Your task to perform on an android device: turn notification dots off Image 0: 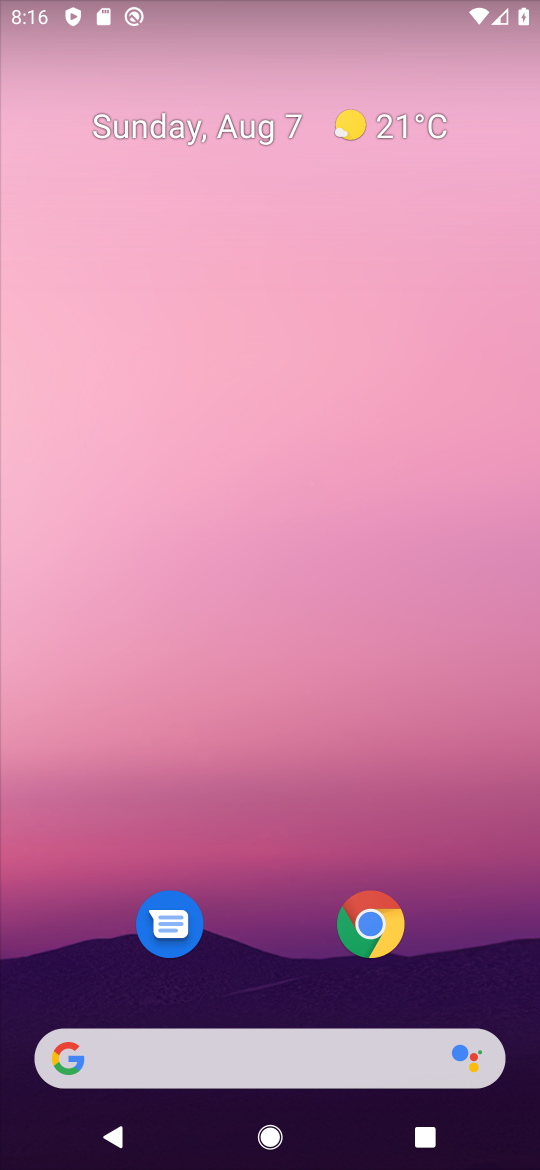
Step 0: drag from (238, 887) to (257, 1)
Your task to perform on an android device: turn notification dots off Image 1: 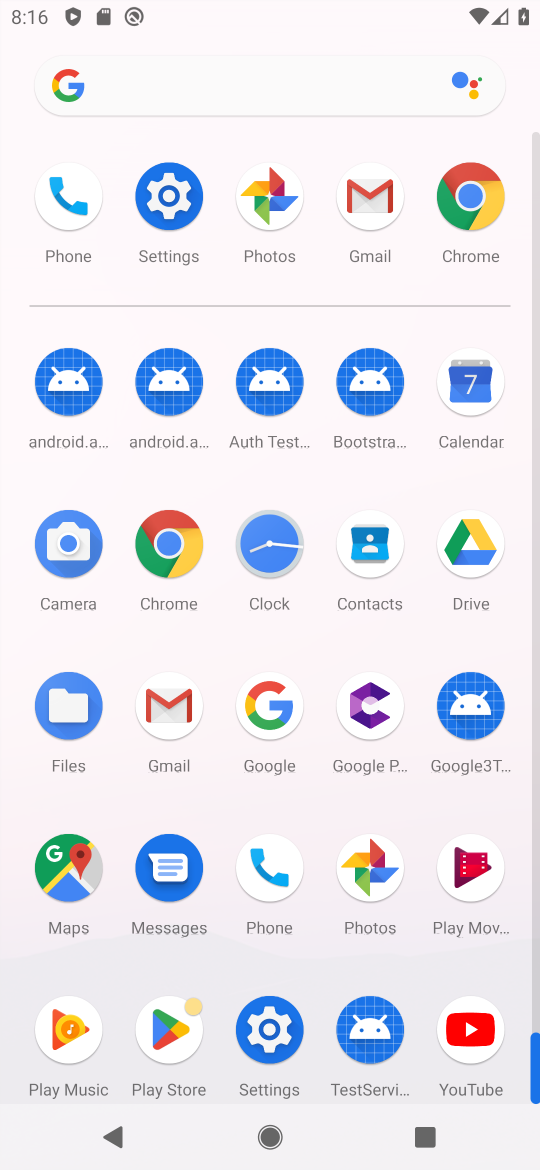
Step 1: click (172, 203)
Your task to perform on an android device: turn notification dots off Image 2: 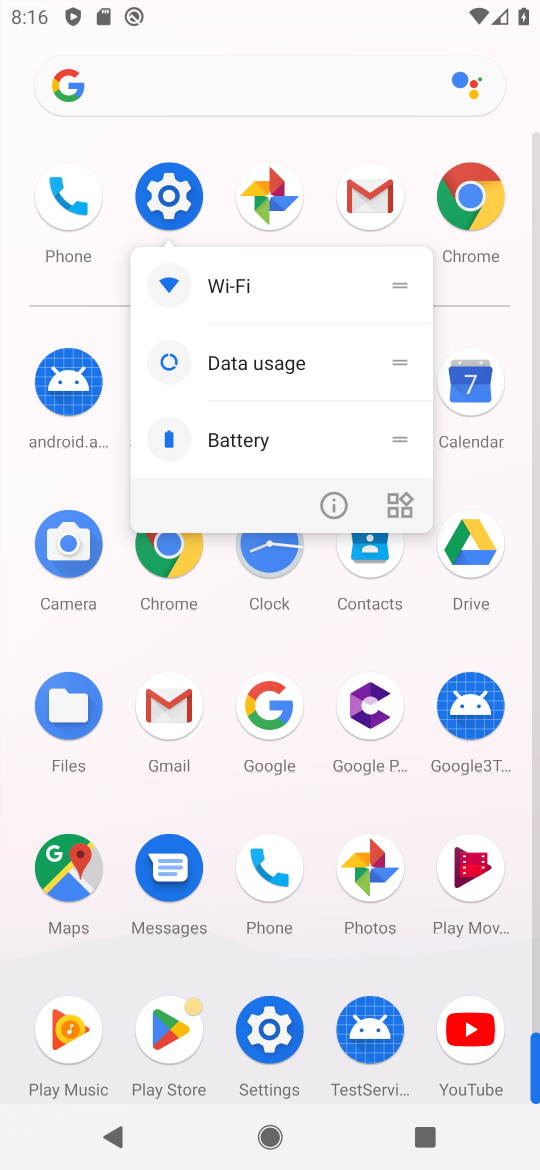
Step 2: click (172, 203)
Your task to perform on an android device: turn notification dots off Image 3: 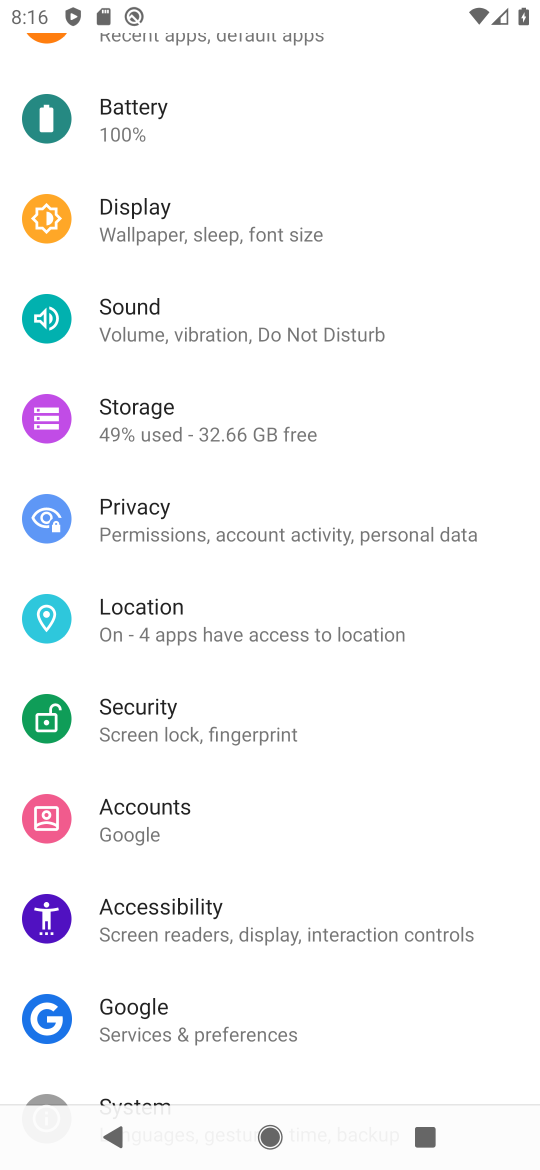
Step 3: drag from (445, 303) to (493, 838)
Your task to perform on an android device: turn notification dots off Image 4: 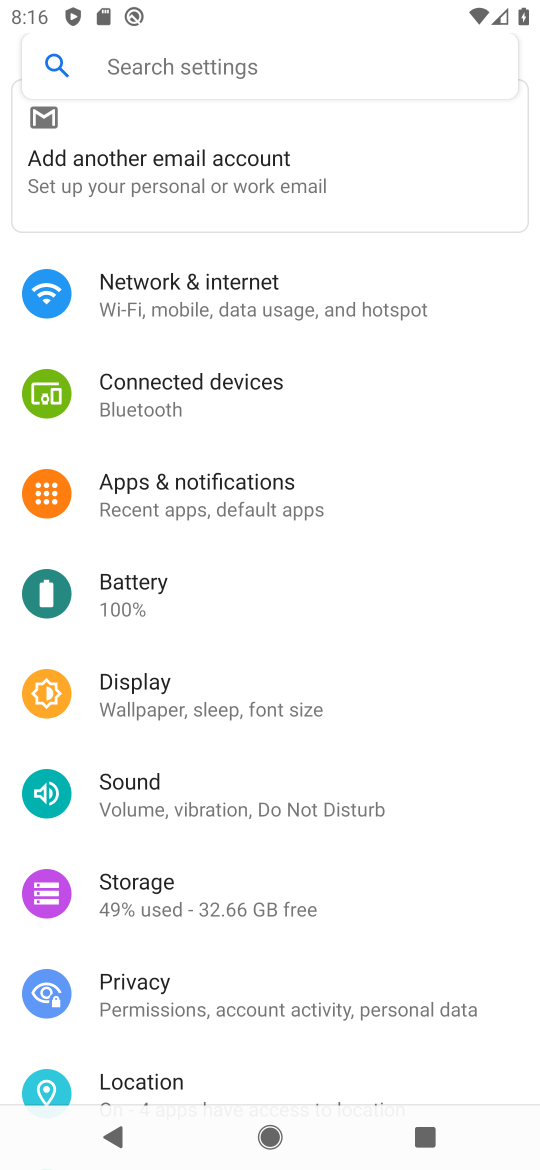
Step 4: click (253, 485)
Your task to perform on an android device: turn notification dots off Image 5: 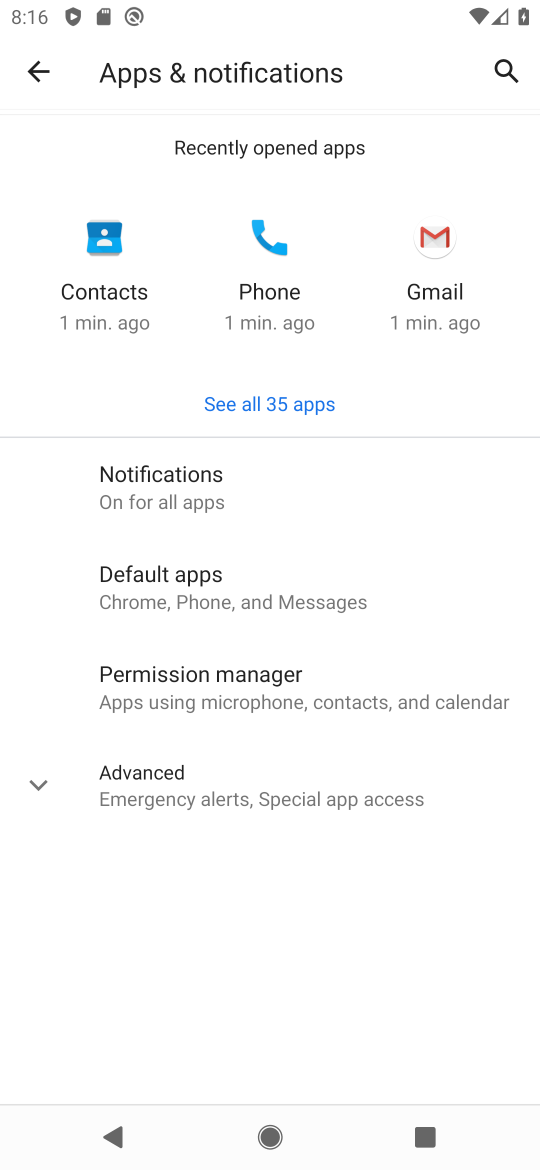
Step 5: click (199, 483)
Your task to perform on an android device: turn notification dots off Image 6: 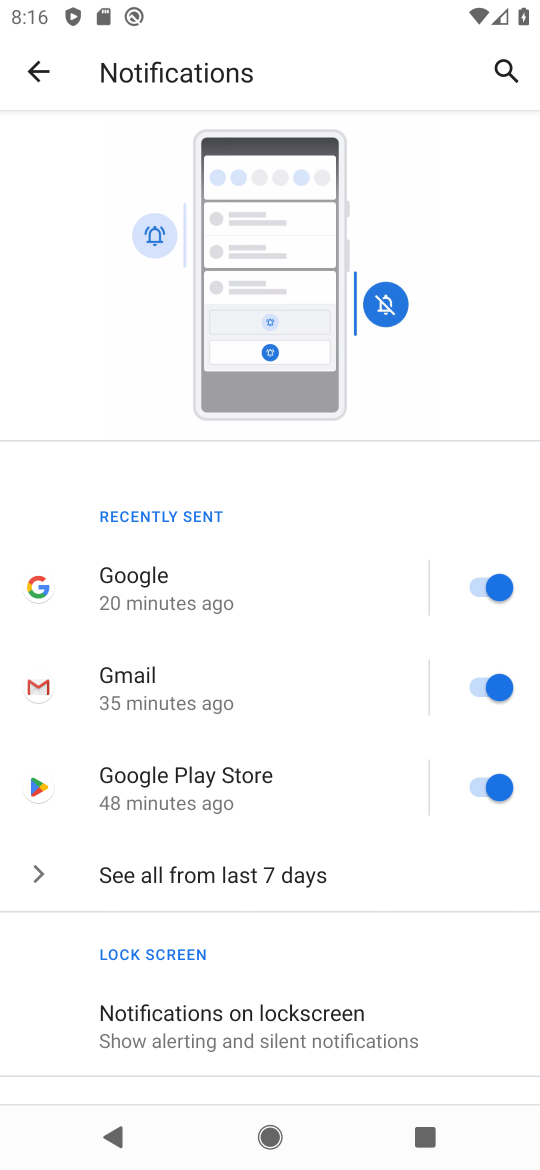
Step 6: drag from (366, 776) to (341, 60)
Your task to perform on an android device: turn notification dots off Image 7: 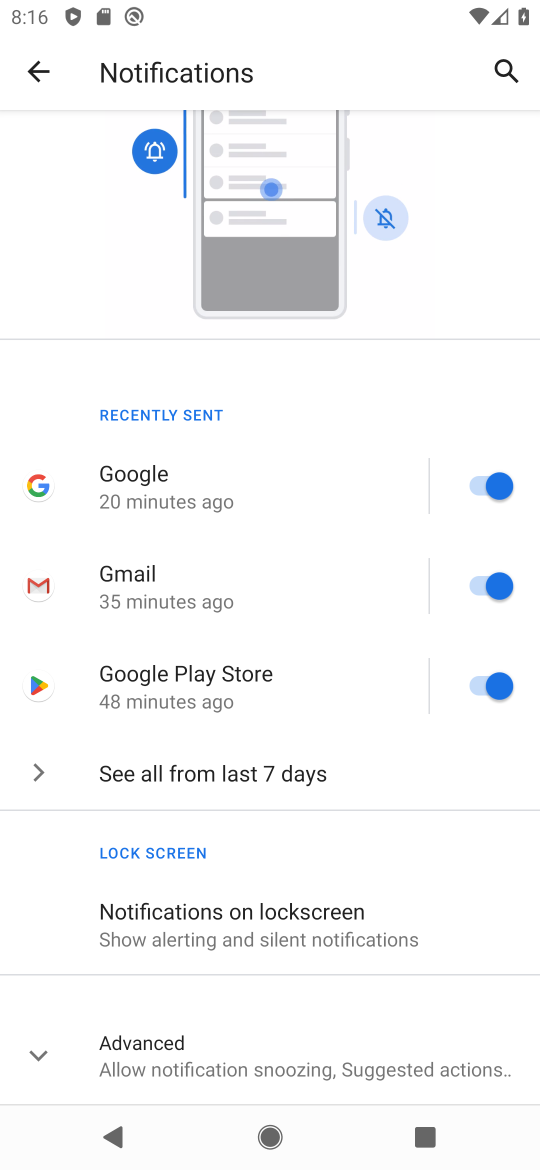
Step 7: click (30, 1042)
Your task to perform on an android device: turn notification dots off Image 8: 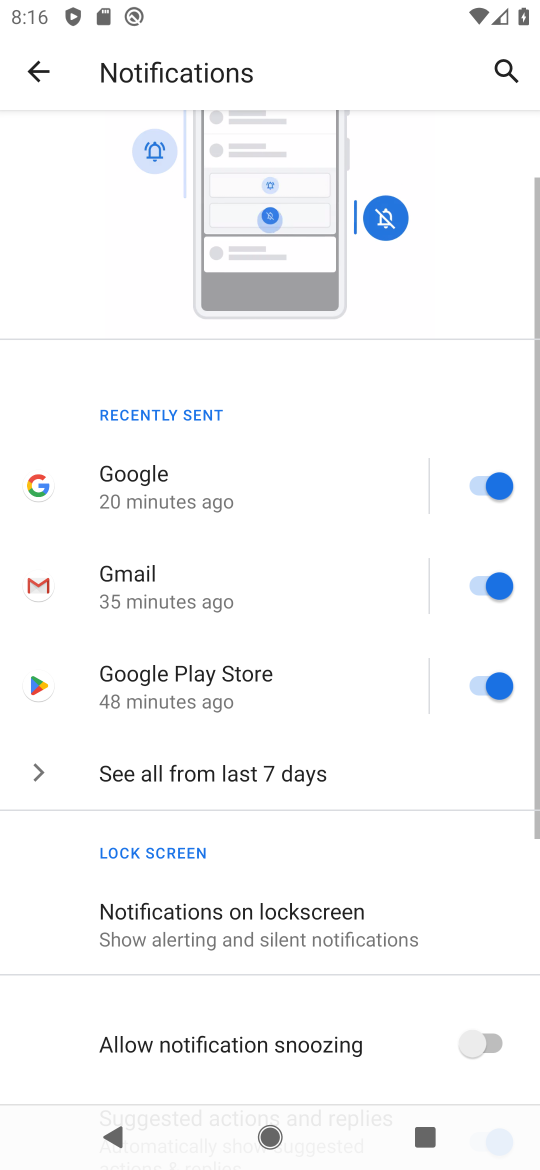
Step 8: drag from (309, 564) to (258, 56)
Your task to perform on an android device: turn notification dots off Image 9: 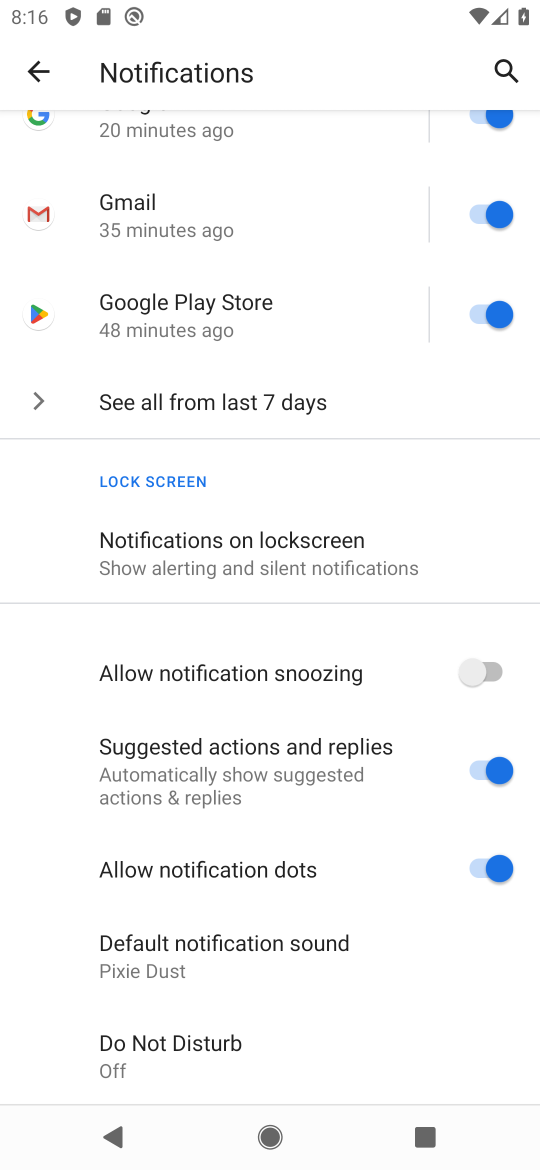
Step 9: click (485, 869)
Your task to perform on an android device: turn notification dots off Image 10: 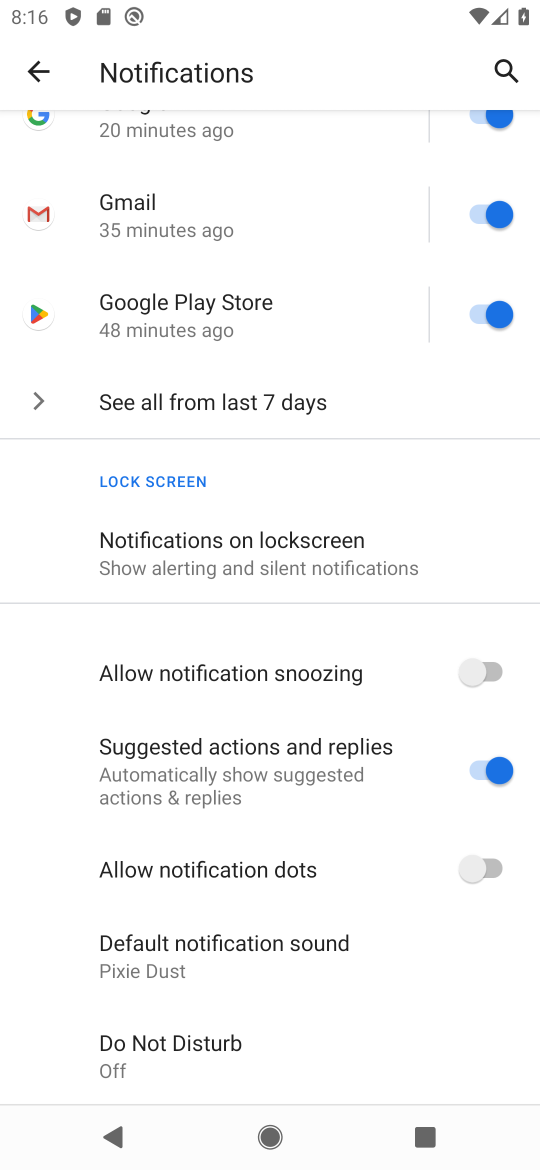
Step 10: task complete